Your task to perform on an android device: Search for seafood restaurants on Google Maps Image 0: 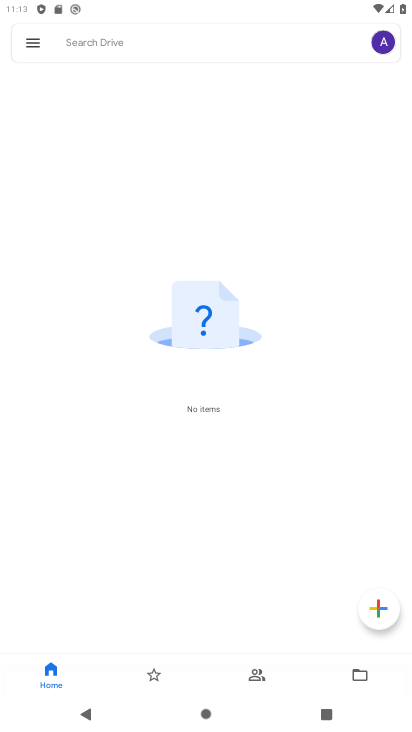
Step 0: press home button
Your task to perform on an android device: Search for seafood restaurants on Google Maps Image 1: 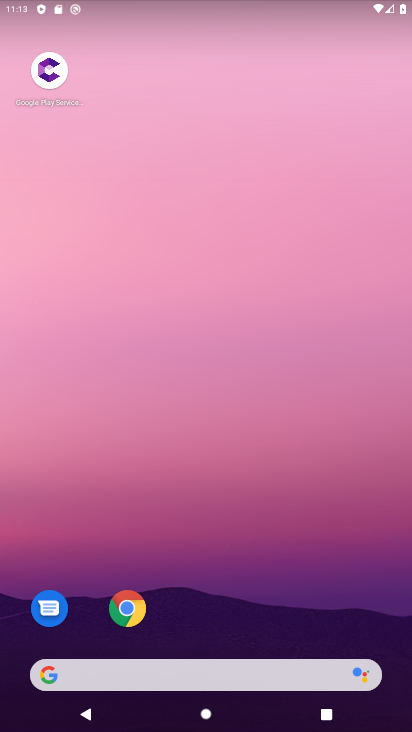
Step 1: drag from (275, 611) to (252, 58)
Your task to perform on an android device: Search for seafood restaurants on Google Maps Image 2: 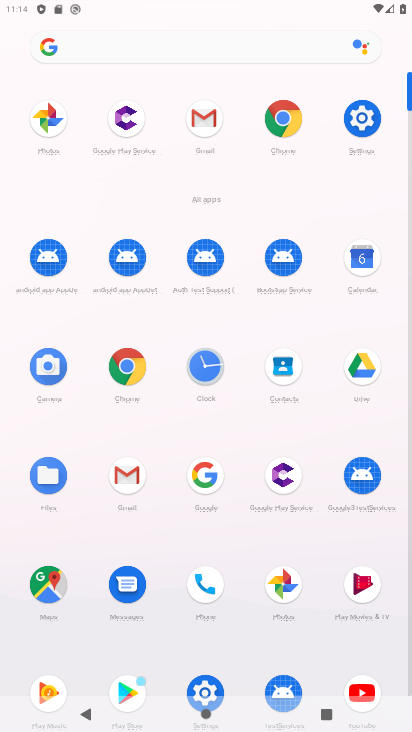
Step 2: click (57, 577)
Your task to perform on an android device: Search for seafood restaurants on Google Maps Image 3: 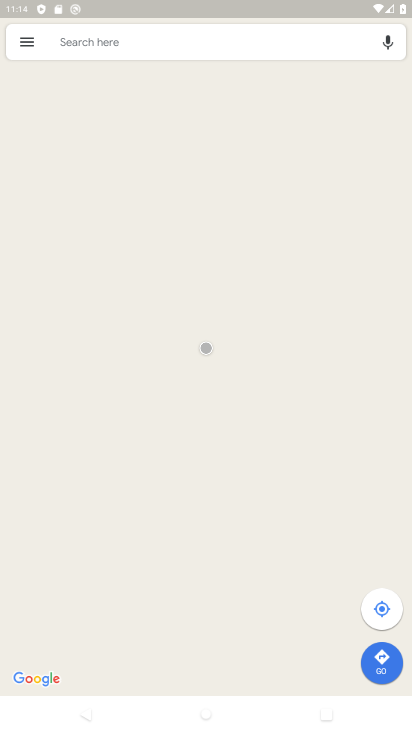
Step 3: click (114, 39)
Your task to perform on an android device: Search for seafood restaurants on Google Maps Image 4: 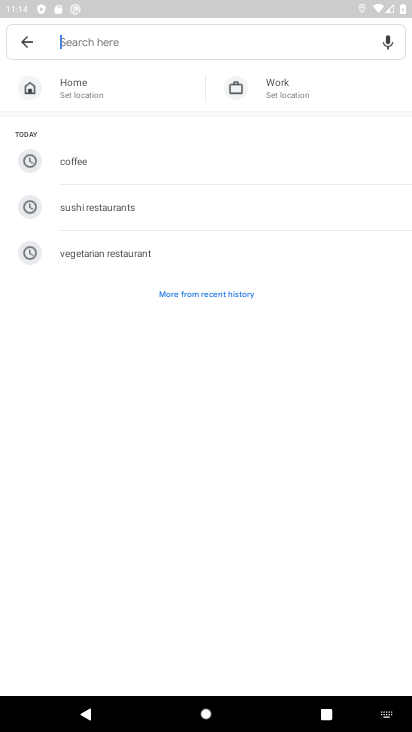
Step 4: type "seafood restaurants "
Your task to perform on an android device: Search for seafood restaurants on Google Maps Image 5: 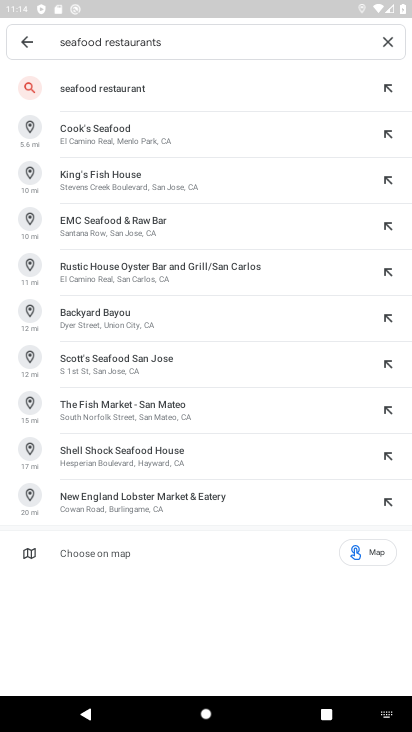
Step 5: click (102, 84)
Your task to perform on an android device: Search for seafood restaurants on Google Maps Image 6: 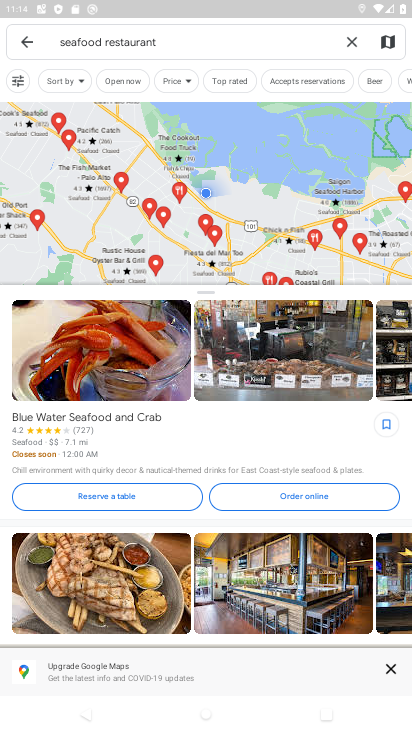
Step 6: task complete